Your task to perform on an android device: Open Amazon Image 0: 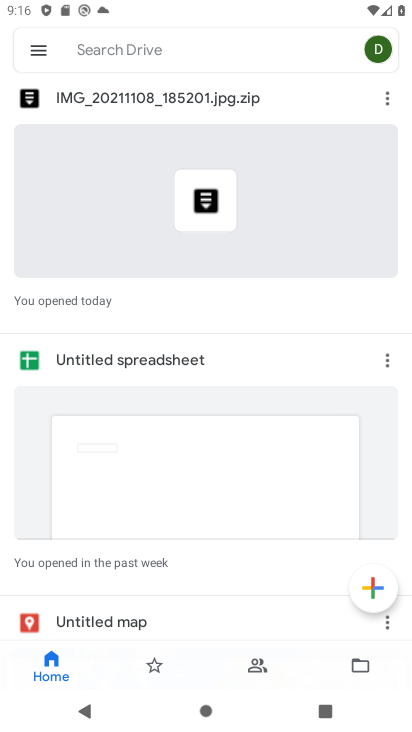
Step 0: press home button
Your task to perform on an android device: Open Amazon Image 1: 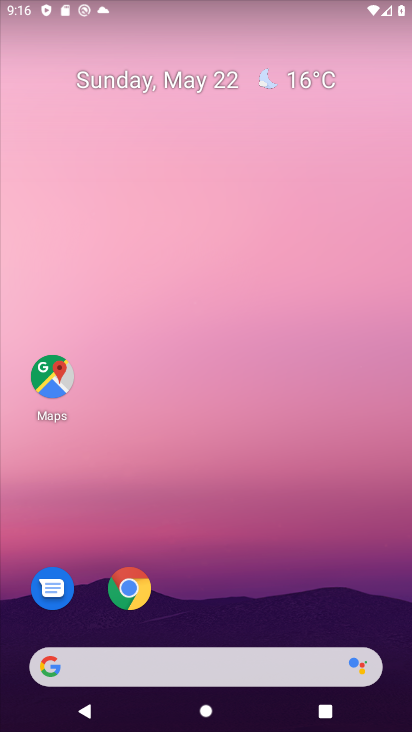
Step 1: click (127, 596)
Your task to perform on an android device: Open Amazon Image 2: 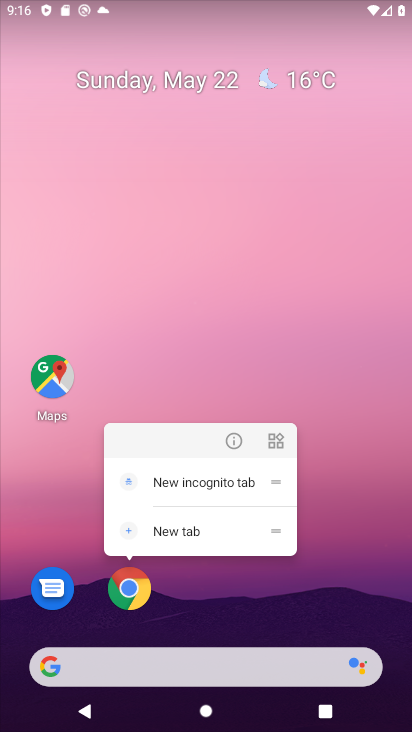
Step 2: click (127, 596)
Your task to perform on an android device: Open Amazon Image 3: 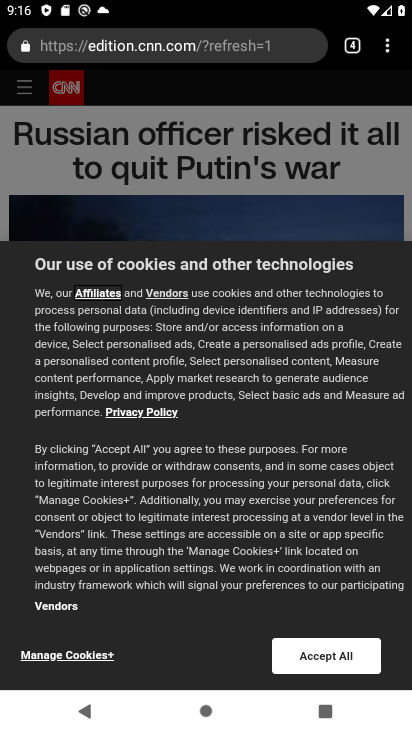
Step 3: click (349, 53)
Your task to perform on an android device: Open Amazon Image 4: 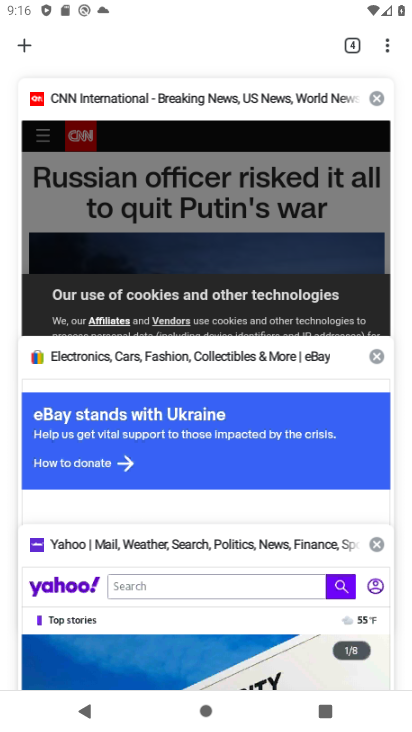
Step 4: click (28, 41)
Your task to perform on an android device: Open Amazon Image 5: 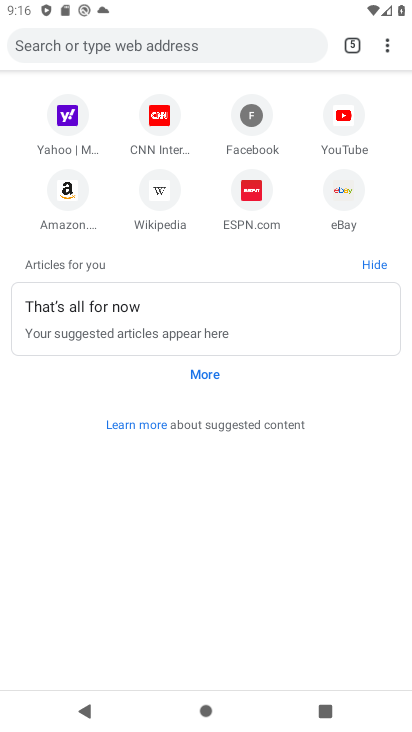
Step 5: click (62, 185)
Your task to perform on an android device: Open Amazon Image 6: 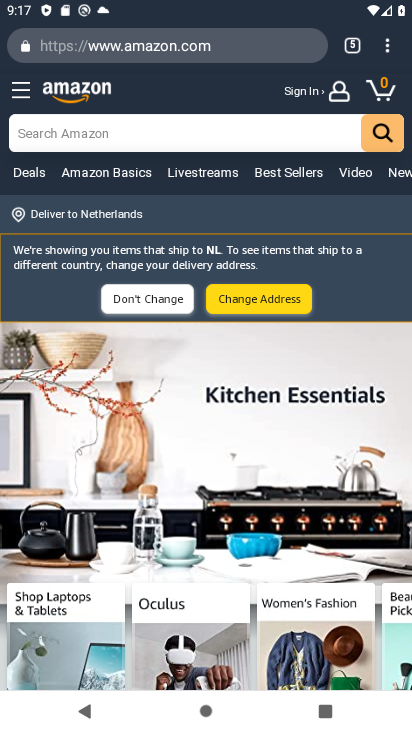
Step 6: task complete